Your task to perform on an android device: Open accessibility settings Image 0: 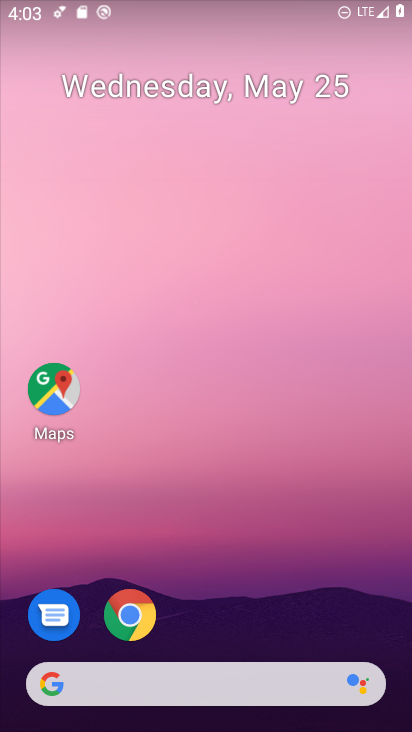
Step 0: drag from (236, 585) to (302, 0)
Your task to perform on an android device: Open accessibility settings Image 1: 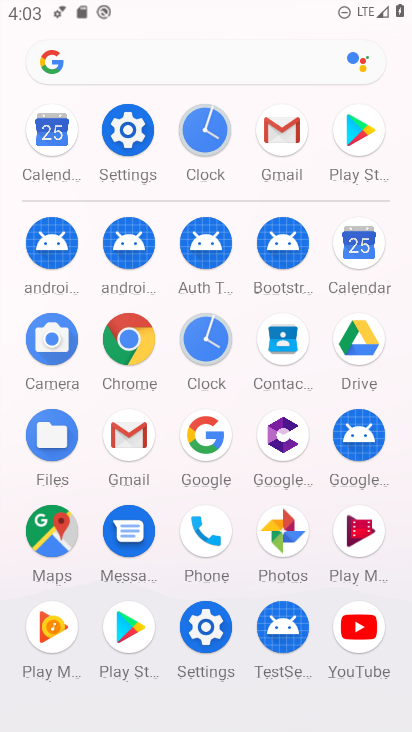
Step 1: click (139, 133)
Your task to perform on an android device: Open accessibility settings Image 2: 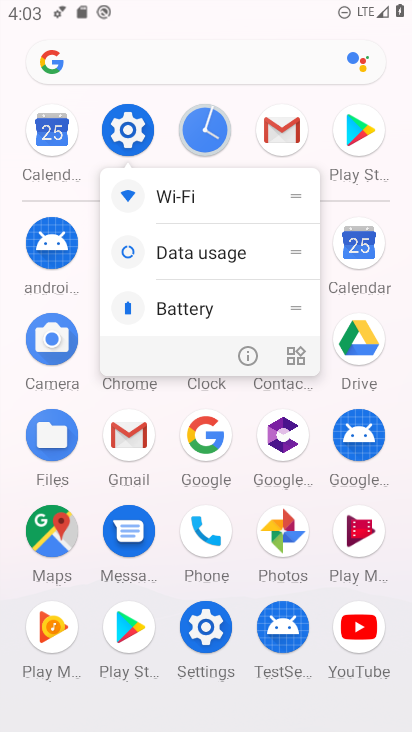
Step 2: click (123, 121)
Your task to perform on an android device: Open accessibility settings Image 3: 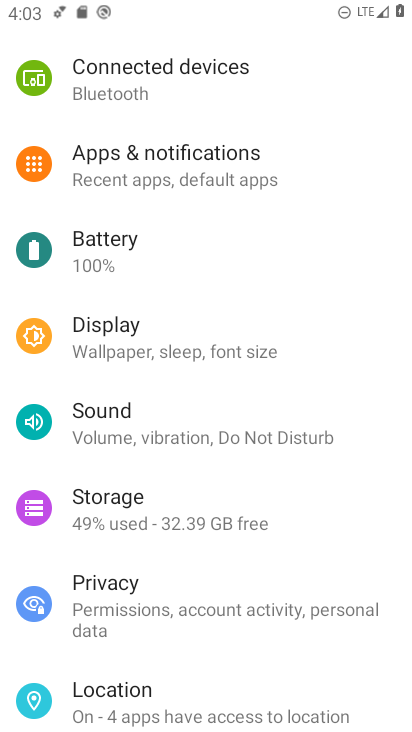
Step 3: drag from (184, 604) to (282, 68)
Your task to perform on an android device: Open accessibility settings Image 4: 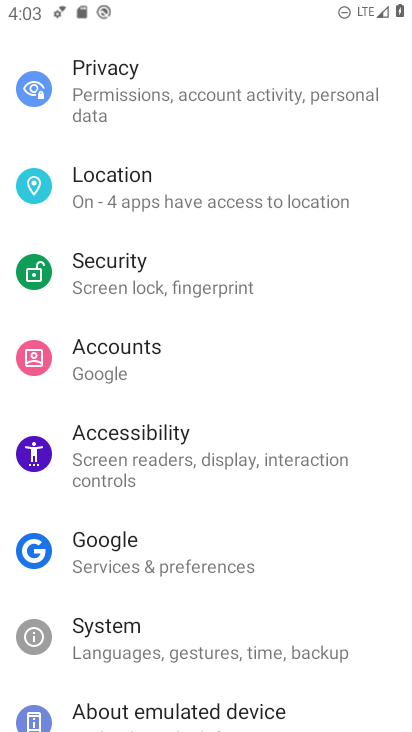
Step 4: click (177, 444)
Your task to perform on an android device: Open accessibility settings Image 5: 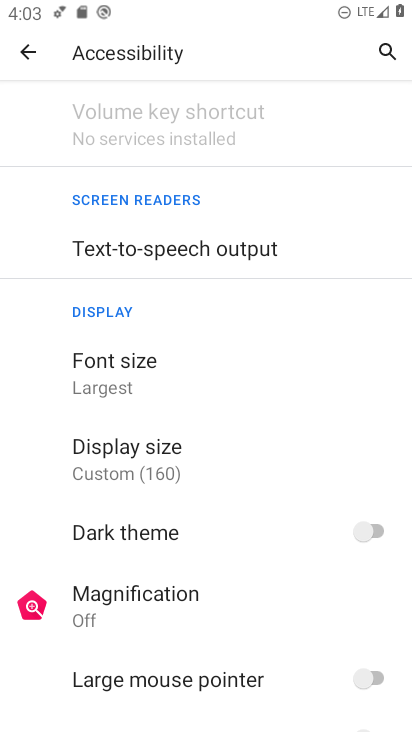
Step 5: task complete